Your task to perform on an android device: Open the Play Movies app and select the watchlist tab. Image 0: 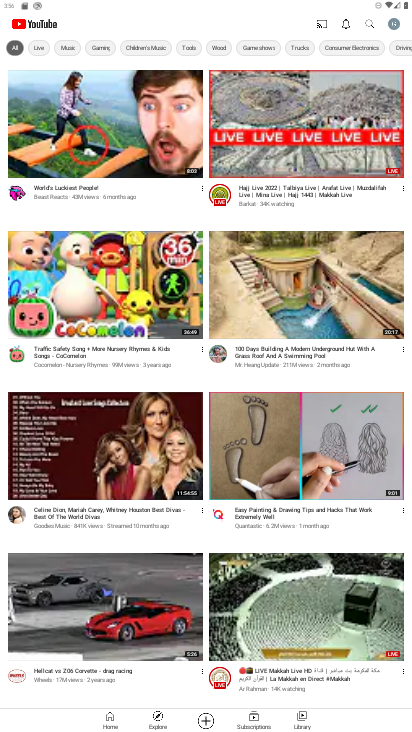
Step 0: press home button
Your task to perform on an android device: Open the Play Movies app and select the watchlist tab. Image 1: 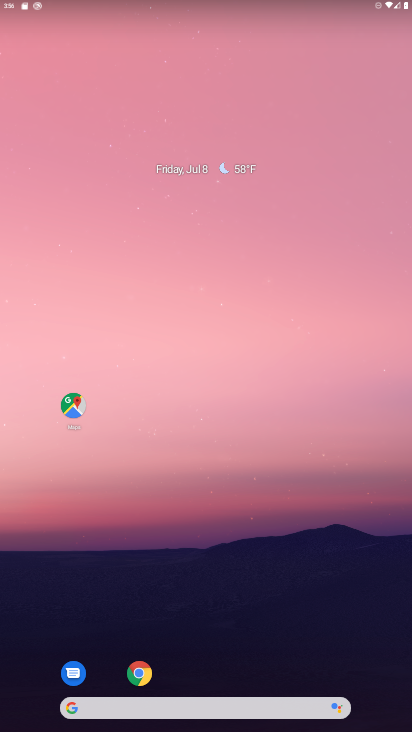
Step 1: drag from (174, 686) to (225, 379)
Your task to perform on an android device: Open the Play Movies app and select the watchlist tab. Image 2: 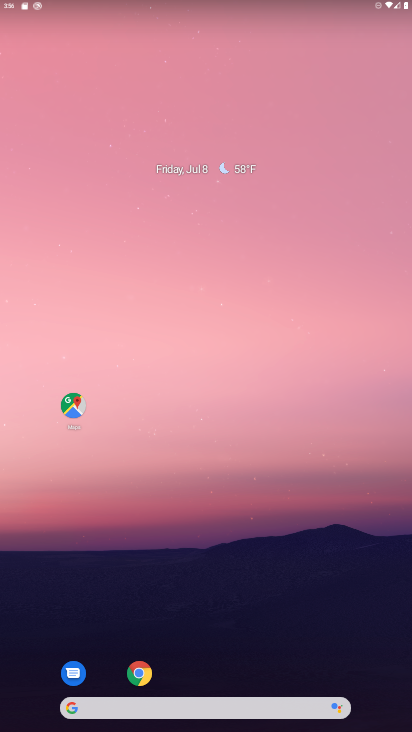
Step 2: drag from (263, 686) to (257, 298)
Your task to perform on an android device: Open the Play Movies app and select the watchlist tab. Image 3: 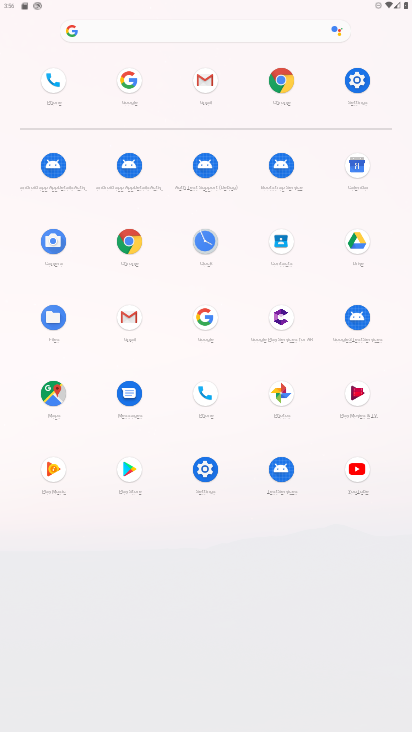
Step 3: click (349, 394)
Your task to perform on an android device: Open the Play Movies app and select the watchlist tab. Image 4: 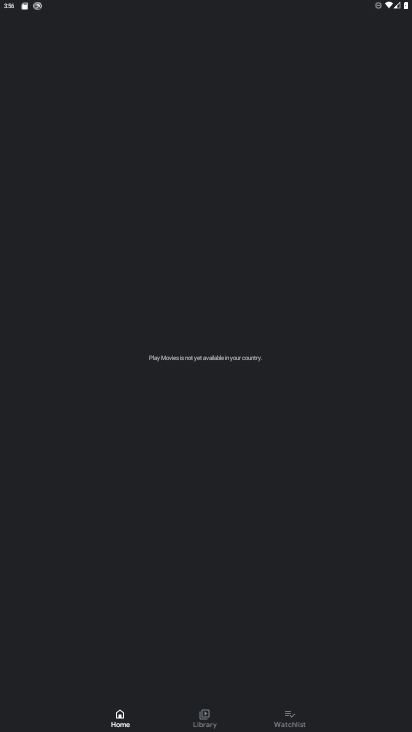
Step 4: click (287, 723)
Your task to perform on an android device: Open the Play Movies app and select the watchlist tab. Image 5: 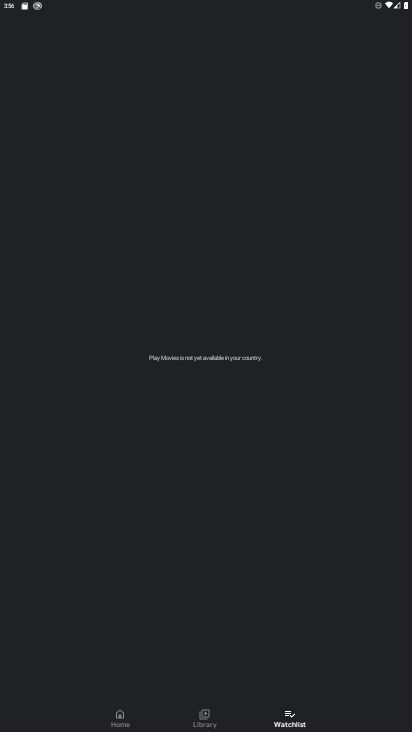
Step 5: task complete